Your task to perform on an android device: check out phone information Image 0: 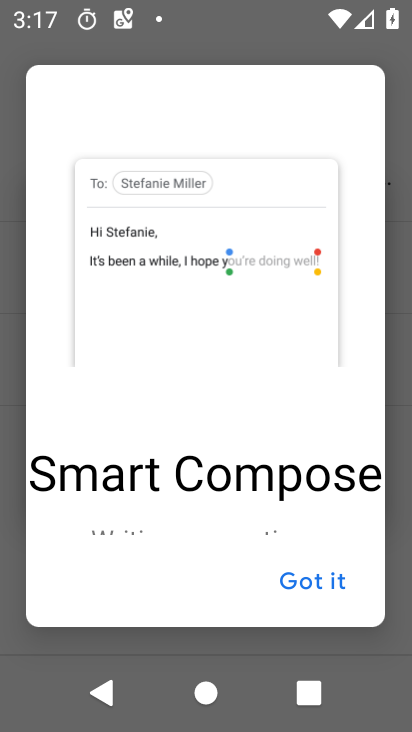
Step 0: press home button
Your task to perform on an android device: check out phone information Image 1: 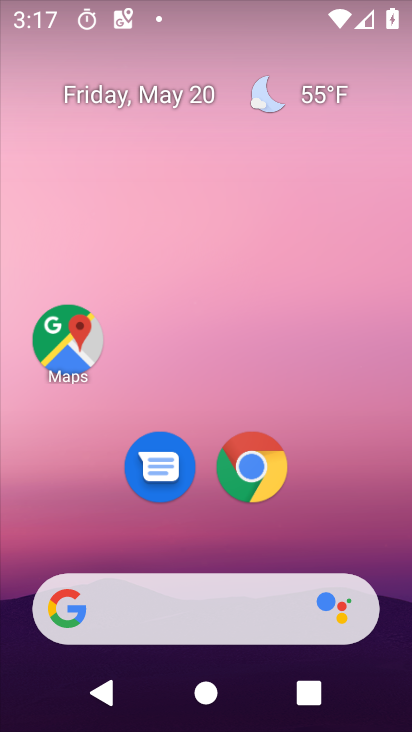
Step 1: drag from (202, 545) to (145, 31)
Your task to perform on an android device: check out phone information Image 2: 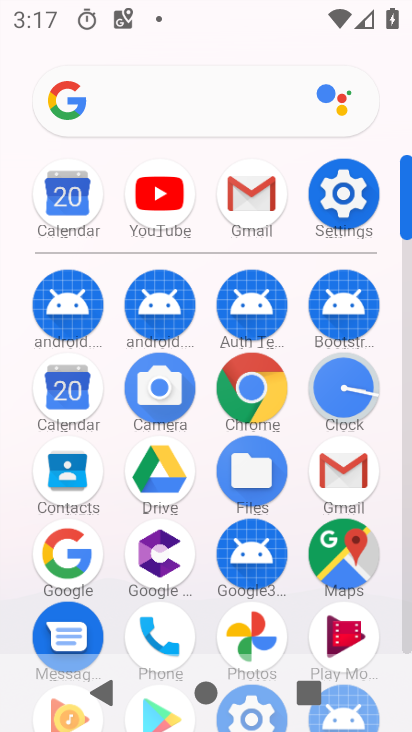
Step 2: click (344, 212)
Your task to perform on an android device: check out phone information Image 3: 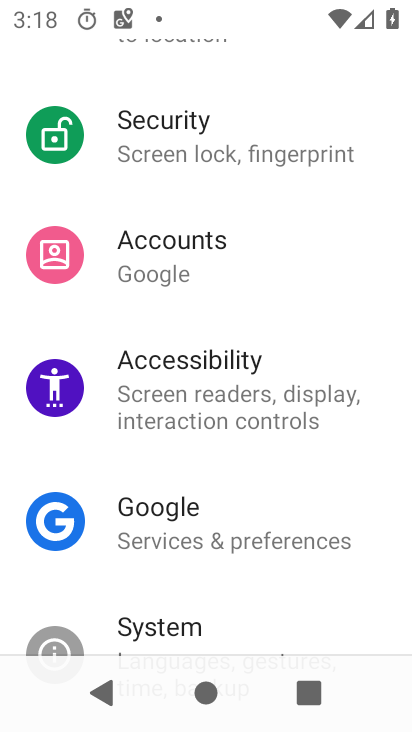
Step 3: drag from (217, 586) to (200, 255)
Your task to perform on an android device: check out phone information Image 4: 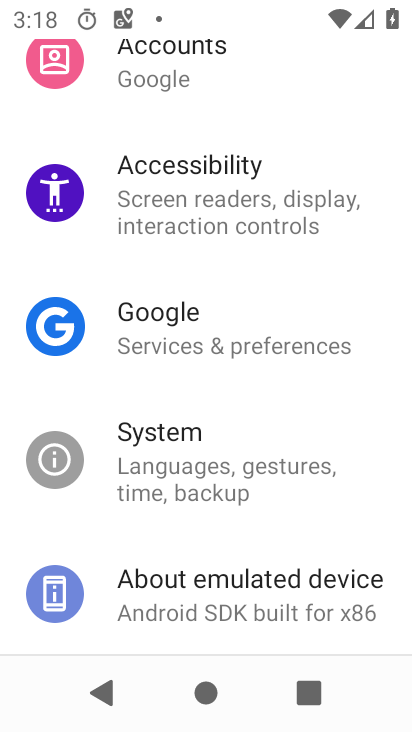
Step 4: click (210, 611)
Your task to perform on an android device: check out phone information Image 5: 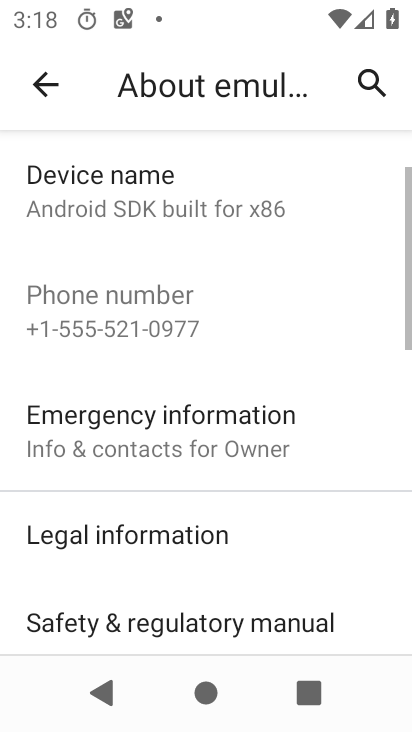
Step 5: task complete